Your task to perform on an android device: Go to Wikipedia Image 0: 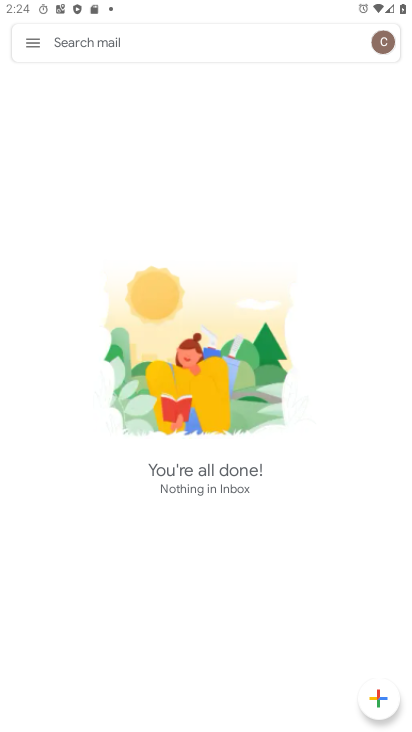
Step 0: press back button
Your task to perform on an android device: Go to Wikipedia Image 1: 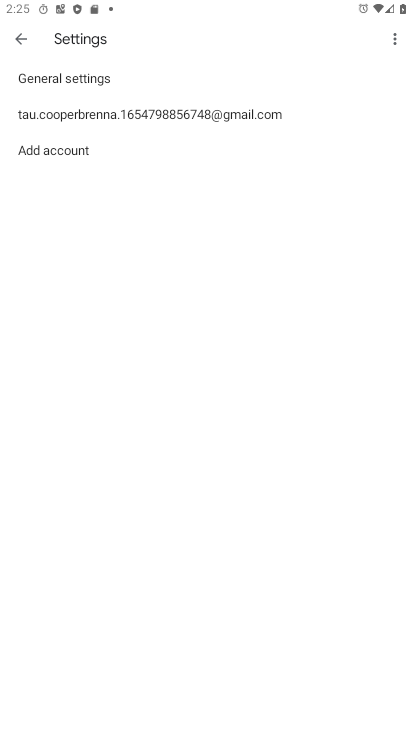
Step 1: press back button
Your task to perform on an android device: Go to Wikipedia Image 2: 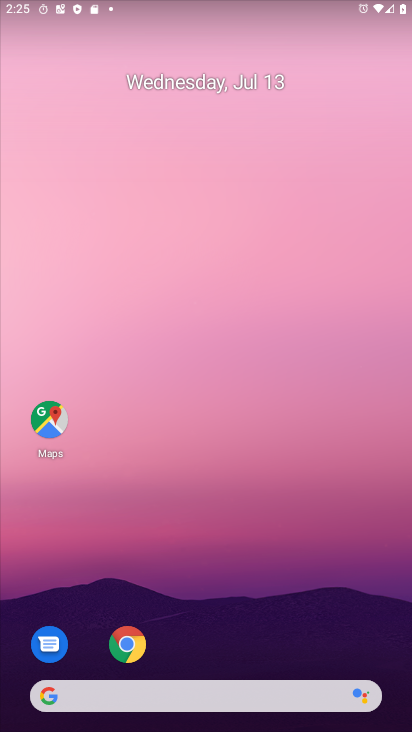
Step 2: click (140, 643)
Your task to perform on an android device: Go to Wikipedia Image 3: 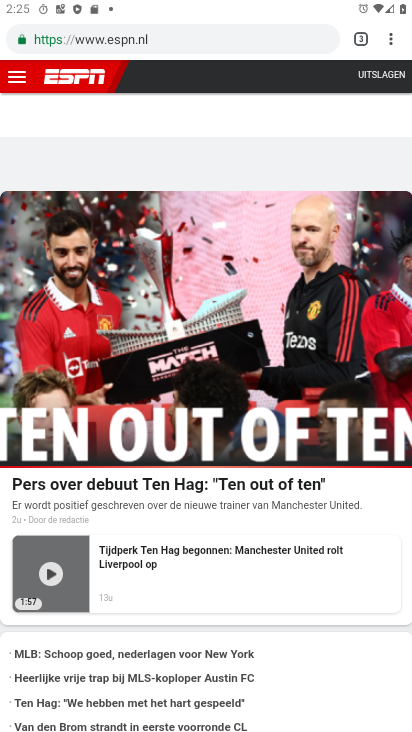
Step 3: click (356, 41)
Your task to perform on an android device: Go to Wikipedia Image 4: 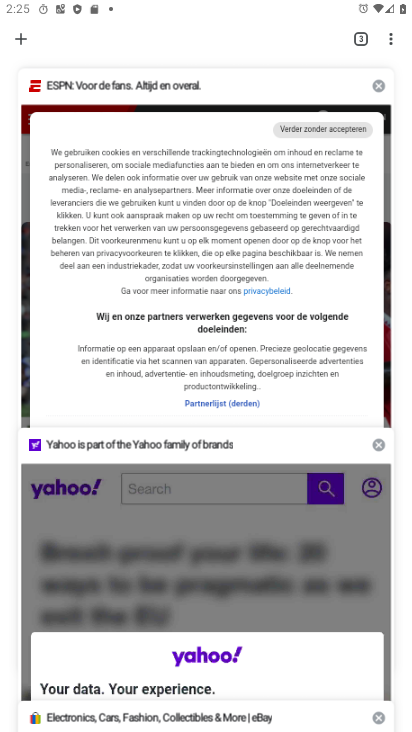
Step 4: click (9, 32)
Your task to perform on an android device: Go to Wikipedia Image 5: 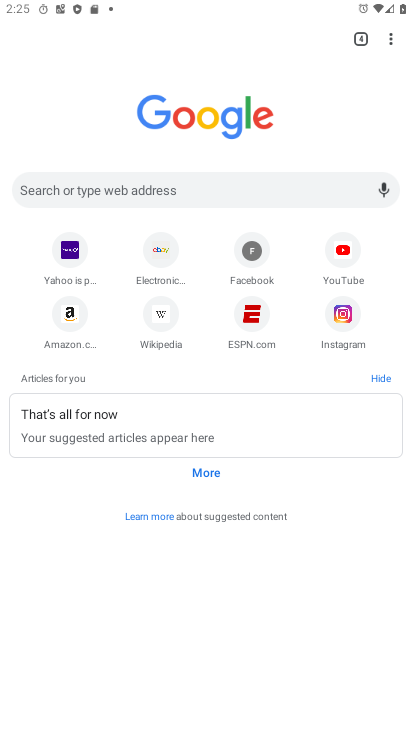
Step 5: click (145, 334)
Your task to perform on an android device: Go to Wikipedia Image 6: 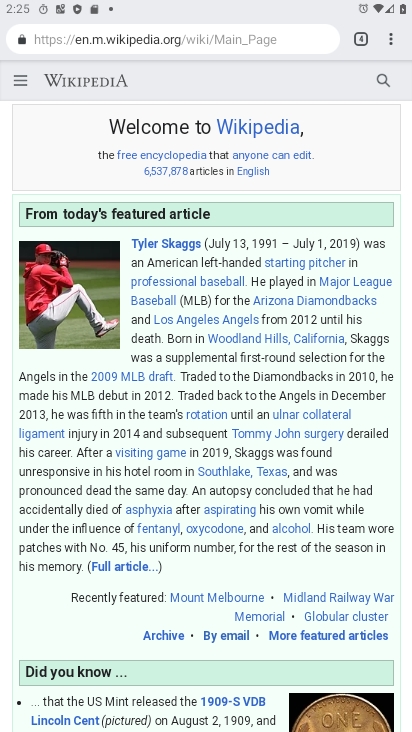
Step 6: task complete